Your task to perform on an android device: Go to Amazon Image 0: 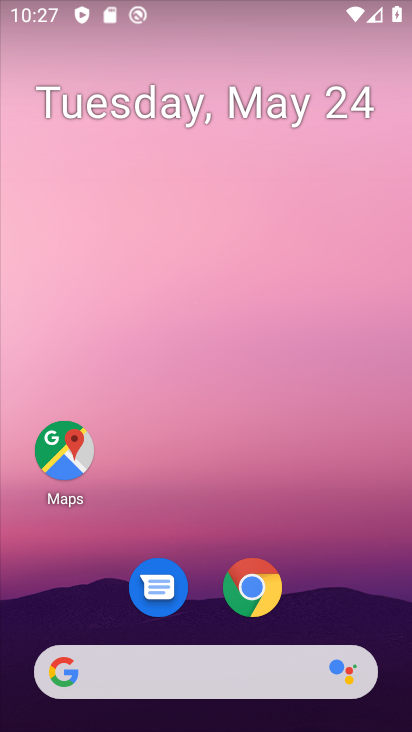
Step 0: press home button
Your task to perform on an android device: Go to Amazon Image 1: 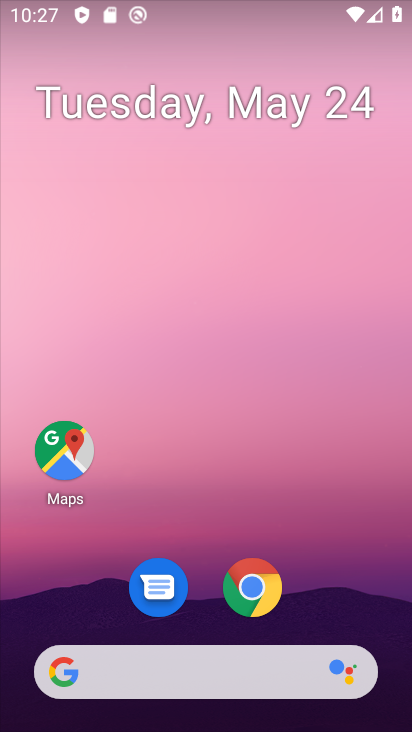
Step 1: click (255, 599)
Your task to perform on an android device: Go to Amazon Image 2: 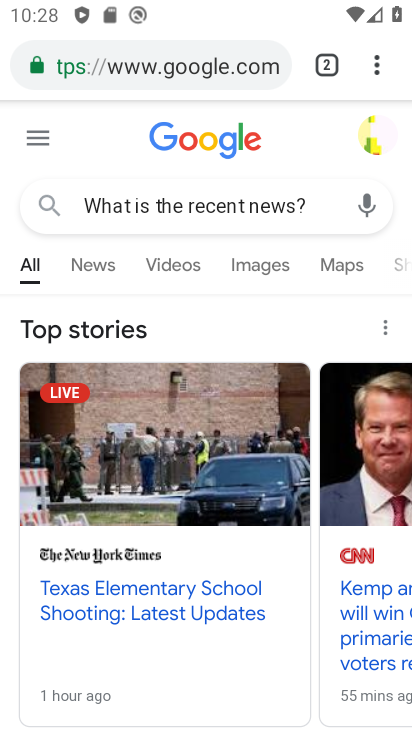
Step 2: click (243, 64)
Your task to perform on an android device: Go to Amazon Image 3: 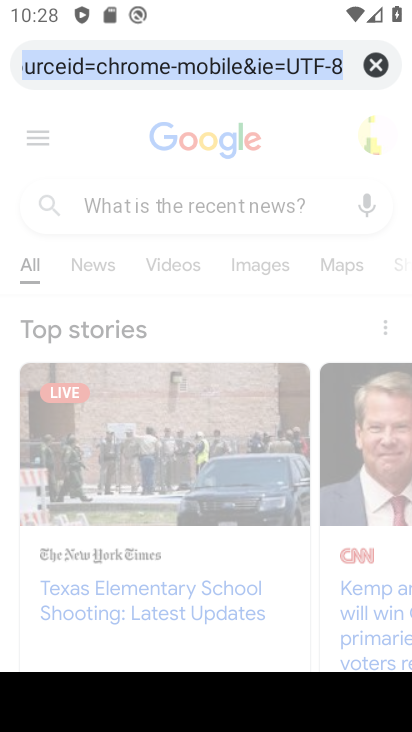
Step 3: click (383, 56)
Your task to perform on an android device: Go to Amazon Image 4: 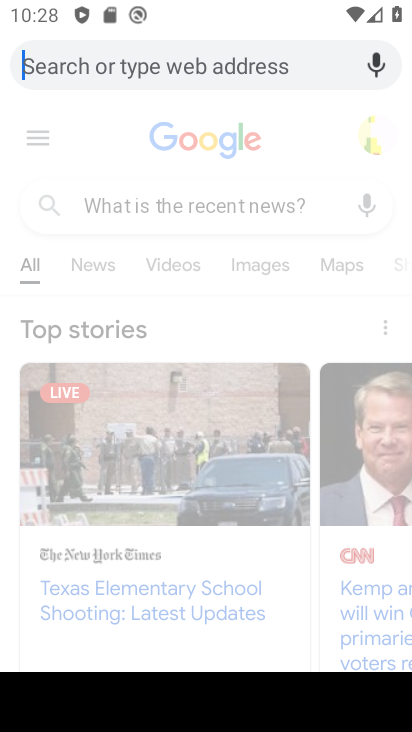
Step 4: type " Amazon"
Your task to perform on an android device: Go to Amazon Image 5: 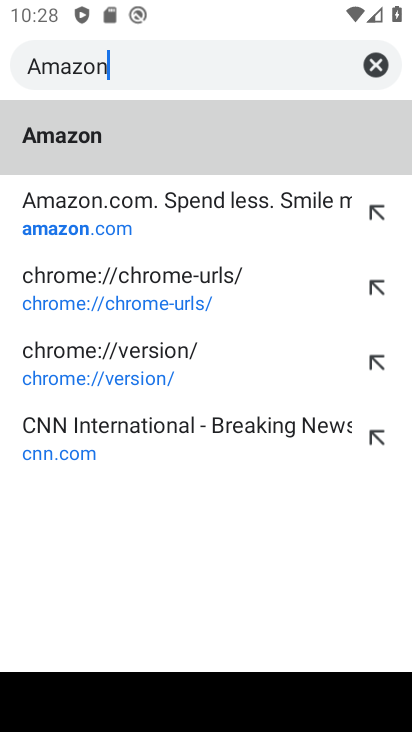
Step 5: type ""
Your task to perform on an android device: Go to Amazon Image 6: 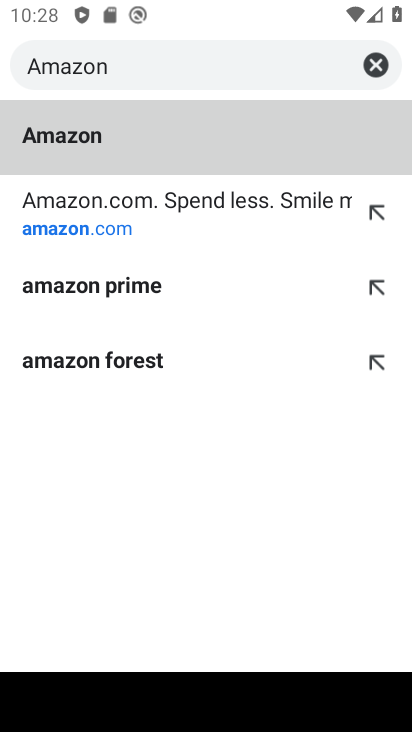
Step 6: click (86, 242)
Your task to perform on an android device: Go to Amazon Image 7: 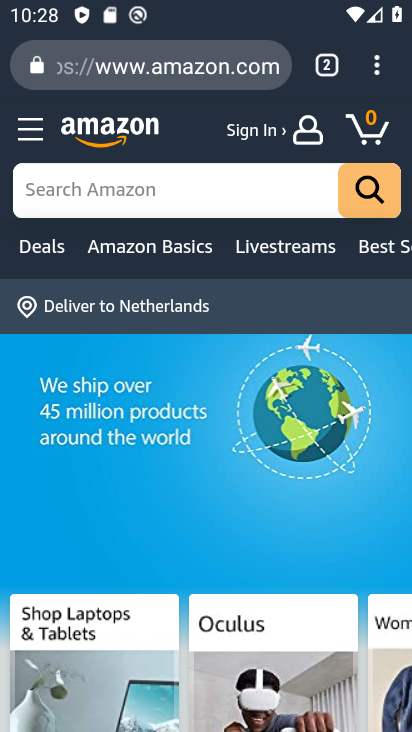
Step 7: task complete